Your task to perform on an android device: Open network settings Image 0: 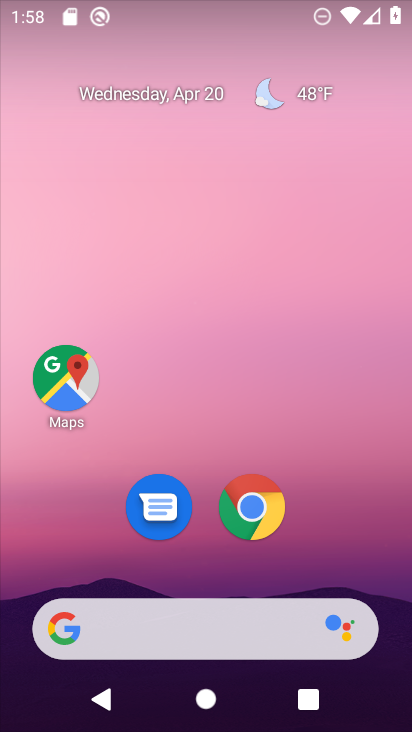
Step 0: drag from (209, 723) to (212, 78)
Your task to perform on an android device: Open network settings Image 1: 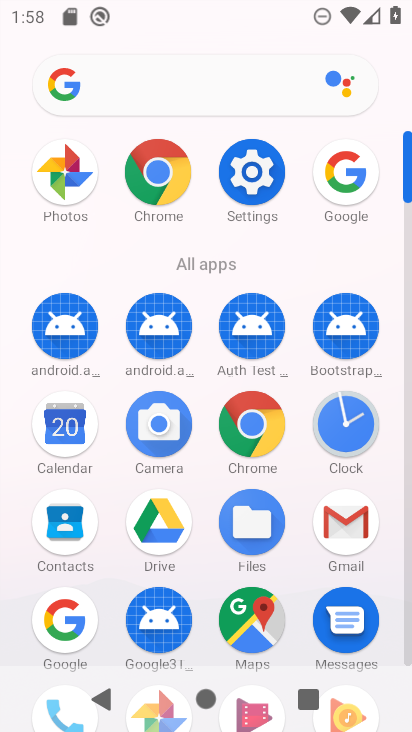
Step 1: click (256, 168)
Your task to perform on an android device: Open network settings Image 2: 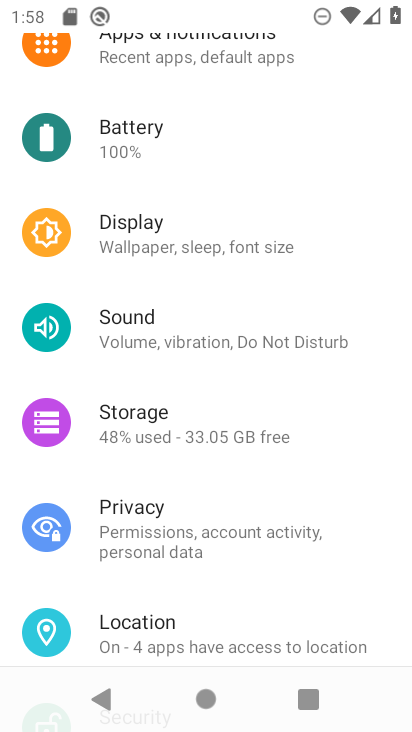
Step 2: drag from (250, 170) to (246, 538)
Your task to perform on an android device: Open network settings Image 3: 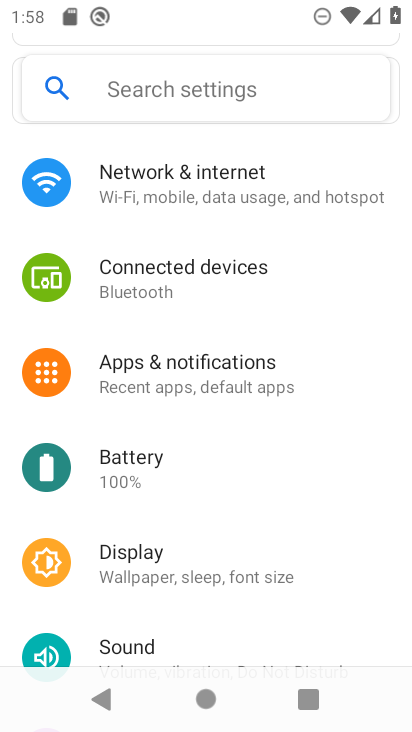
Step 3: click (160, 182)
Your task to perform on an android device: Open network settings Image 4: 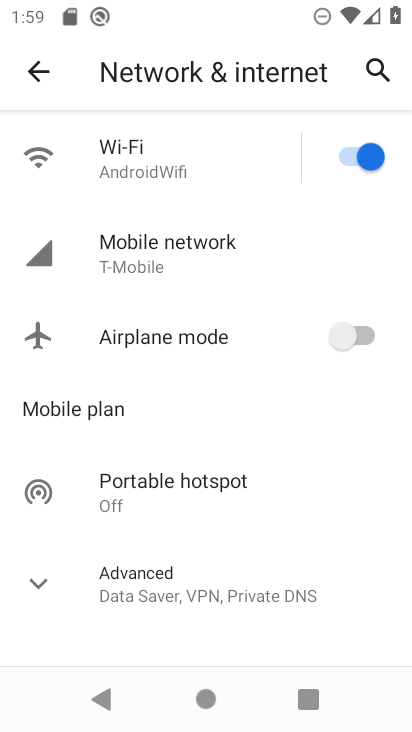
Step 4: task complete